Your task to perform on an android device: toggle location history Image 0: 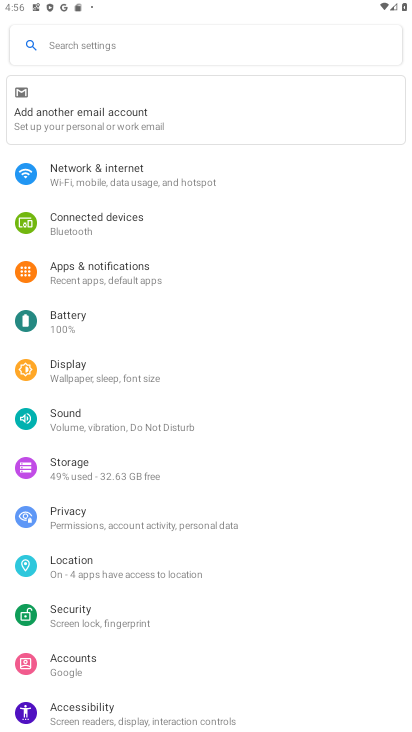
Step 0: click (69, 556)
Your task to perform on an android device: toggle location history Image 1: 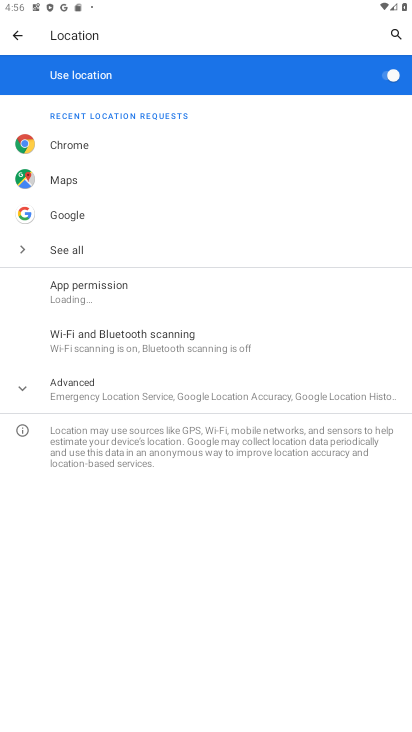
Step 1: click (29, 385)
Your task to perform on an android device: toggle location history Image 2: 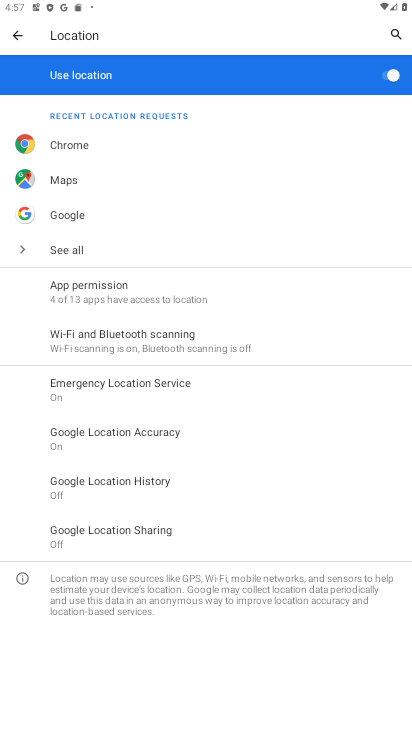
Step 2: click (85, 475)
Your task to perform on an android device: toggle location history Image 3: 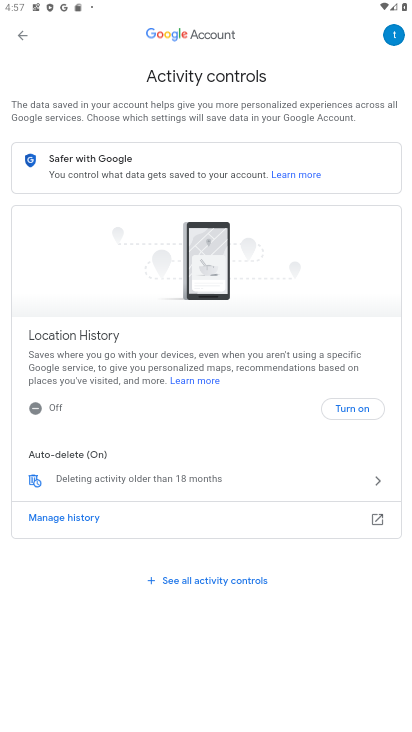
Step 3: click (350, 403)
Your task to perform on an android device: toggle location history Image 4: 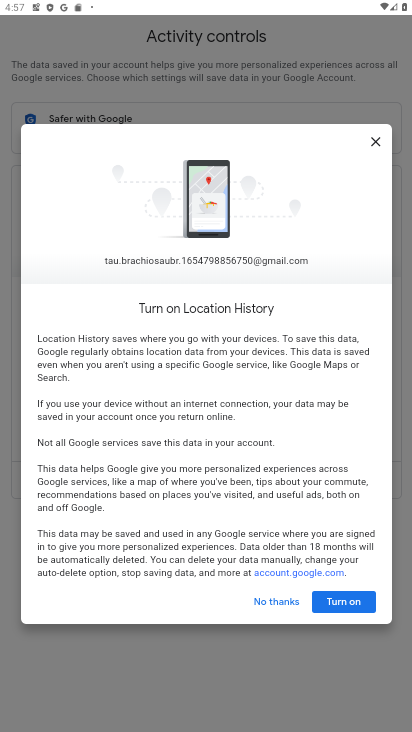
Step 4: click (344, 597)
Your task to perform on an android device: toggle location history Image 5: 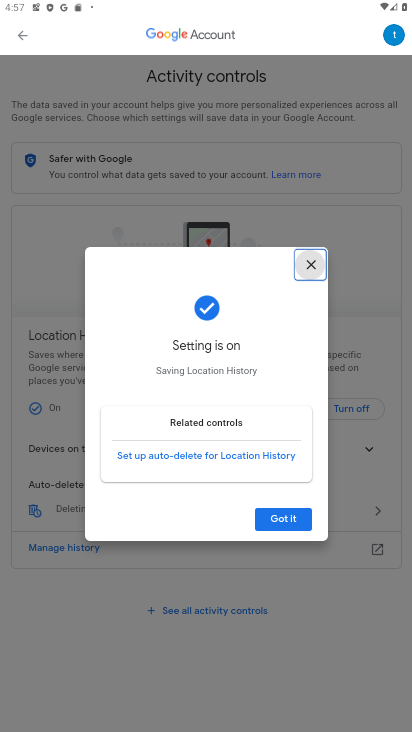
Step 5: click (289, 521)
Your task to perform on an android device: toggle location history Image 6: 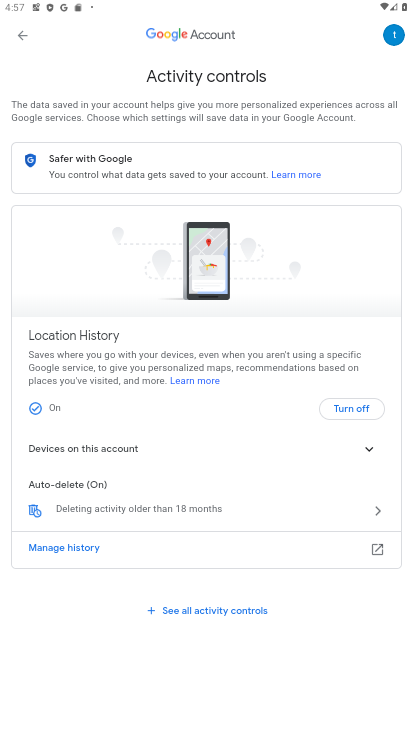
Step 6: task complete